Your task to perform on an android device: uninstall "Reddit" Image 0: 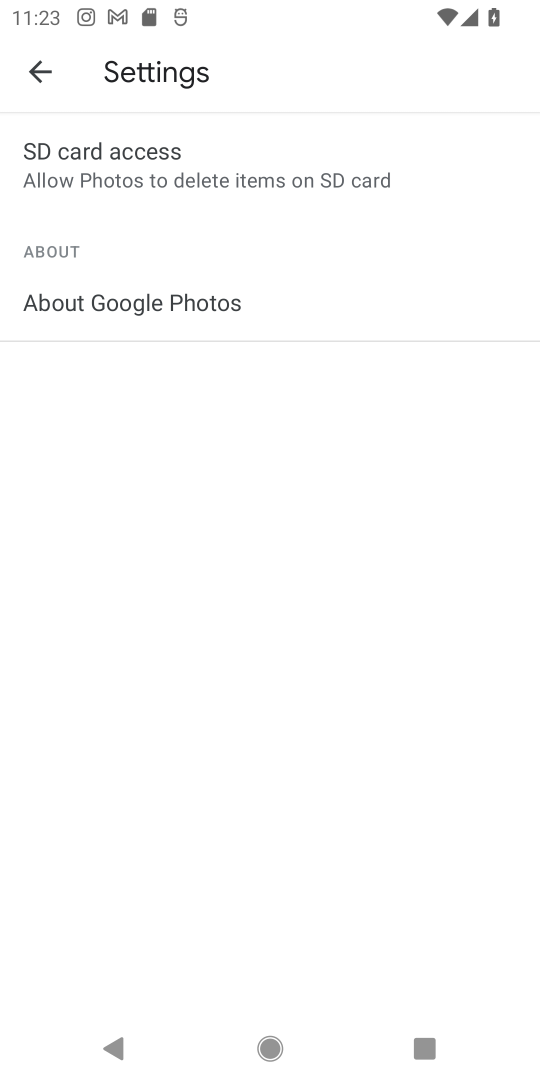
Step 0: press home button
Your task to perform on an android device: uninstall "Reddit" Image 1: 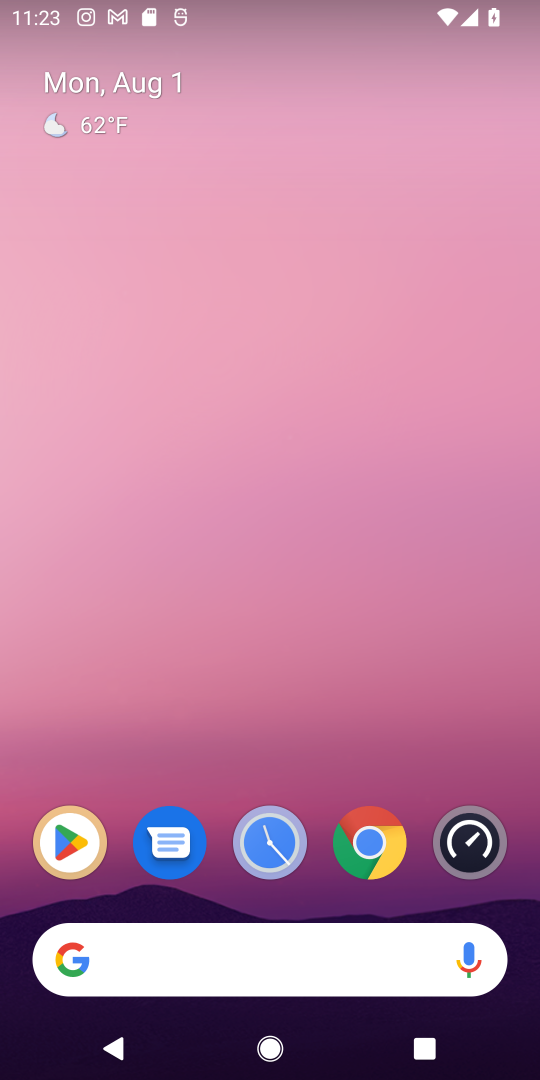
Step 1: click (53, 842)
Your task to perform on an android device: uninstall "Reddit" Image 2: 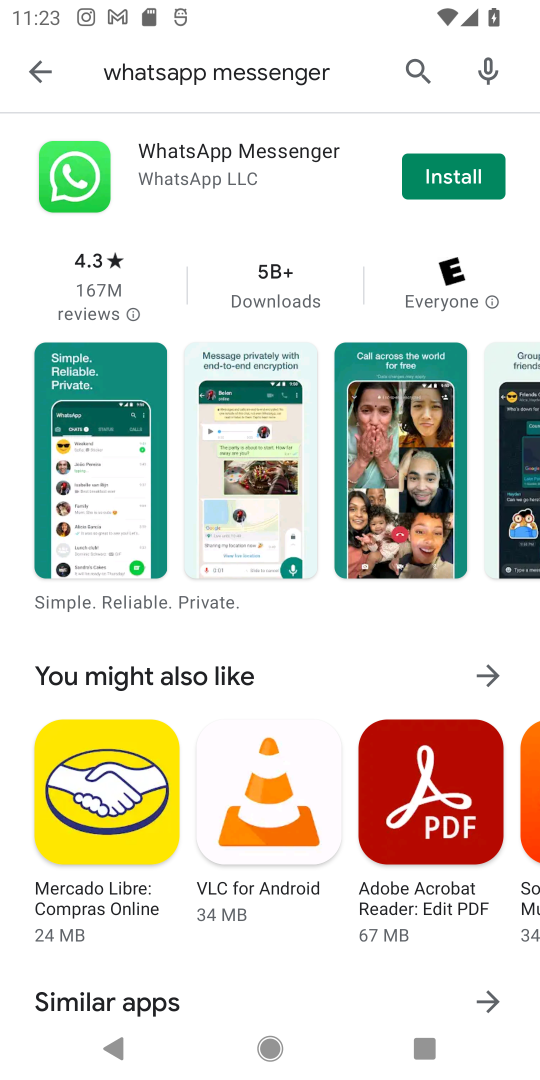
Step 2: click (411, 73)
Your task to perform on an android device: uninstall "Reddit" Image 3: 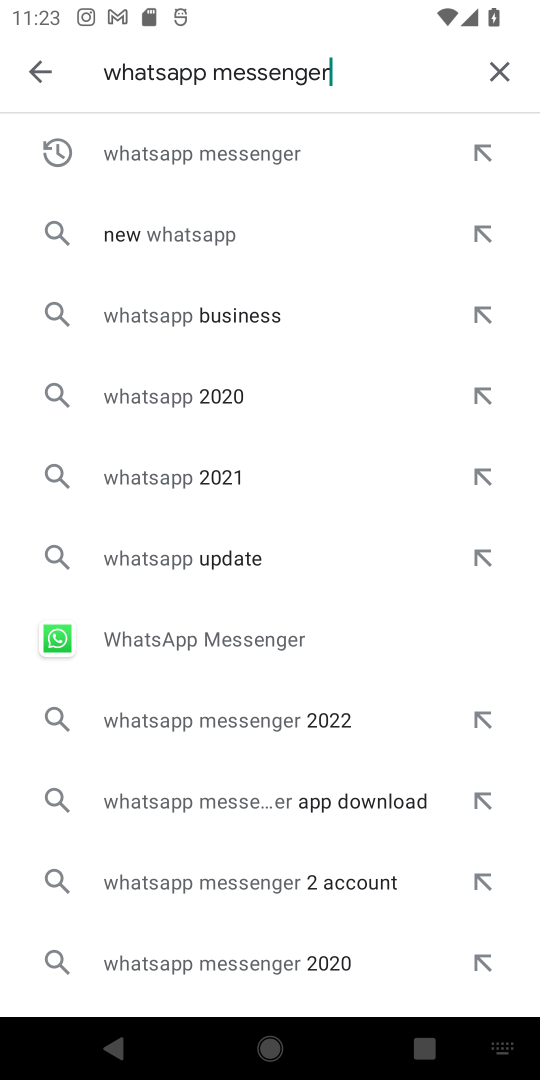
Step 3: click (479, 60)
Your task to perform on an android device: uninstall "Reddit" Image 4: 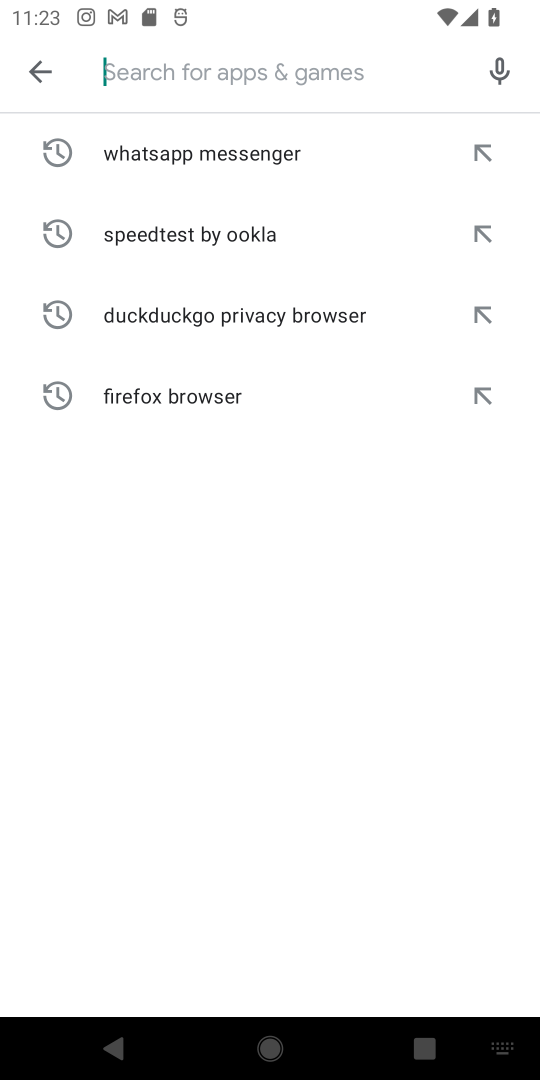
Step 4: click (227, 90)
Your task to perform on an android device: uninstall "Reddit" Image 5: 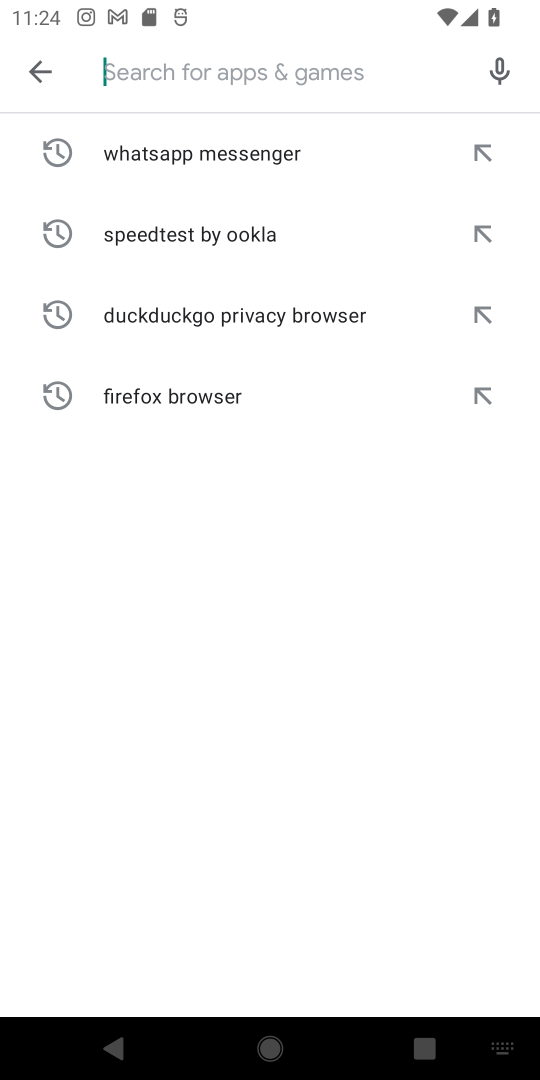
Step 5: click (177, 71)
Your task to perform on an android device: uninstall "Reddit" Image 6: 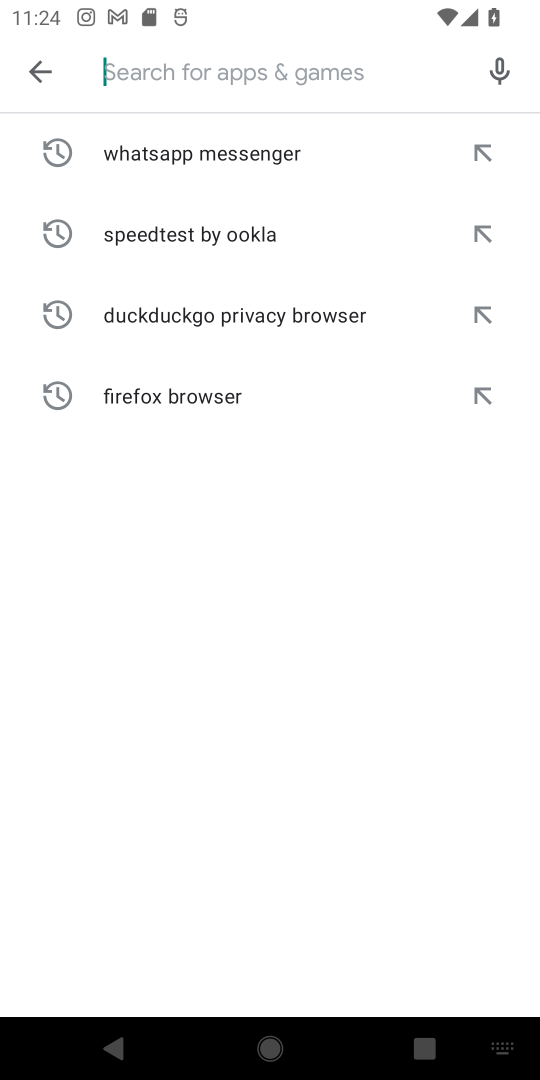
Step 6: type "Reddit"
Your task to perform on an android device: uninstall "Reddit" Image 7: 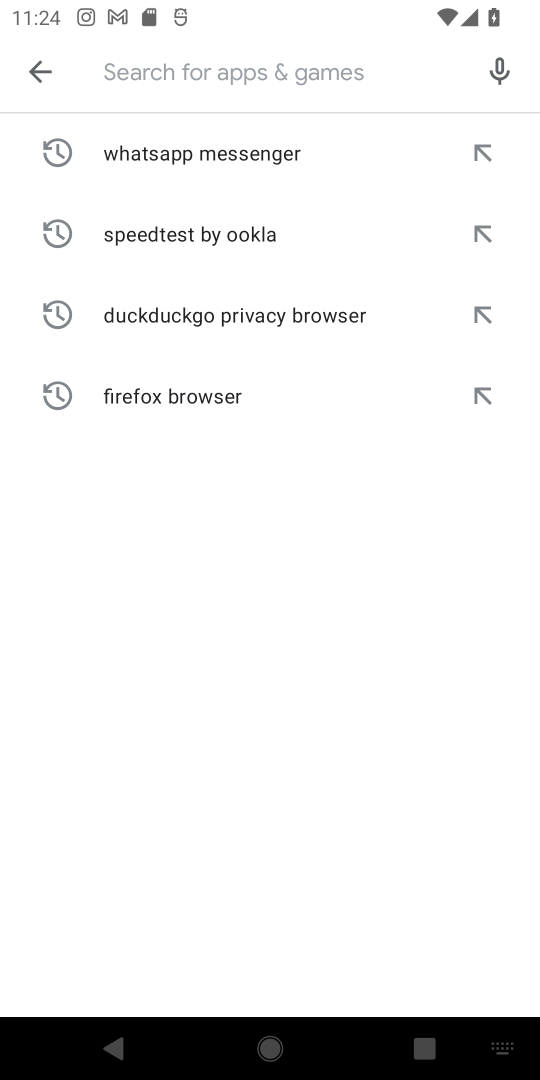
Step 7: click (176, 525)
Your task to perform on an android device: uninstall "Reddit" Image 8: 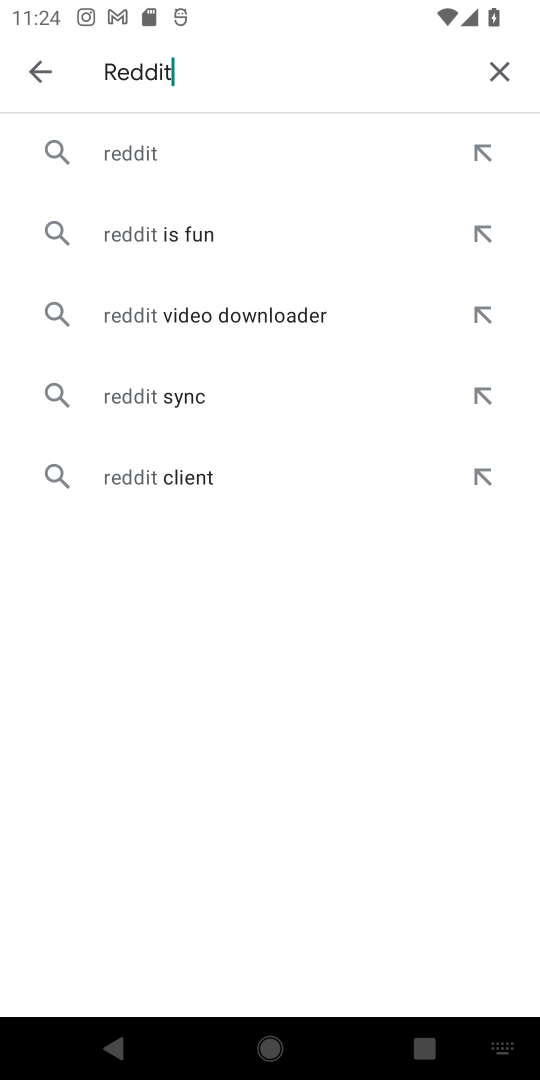
Step 8: click (190, 139)
Your task to perform on an android device: uninstall "Reddit" Image 9: 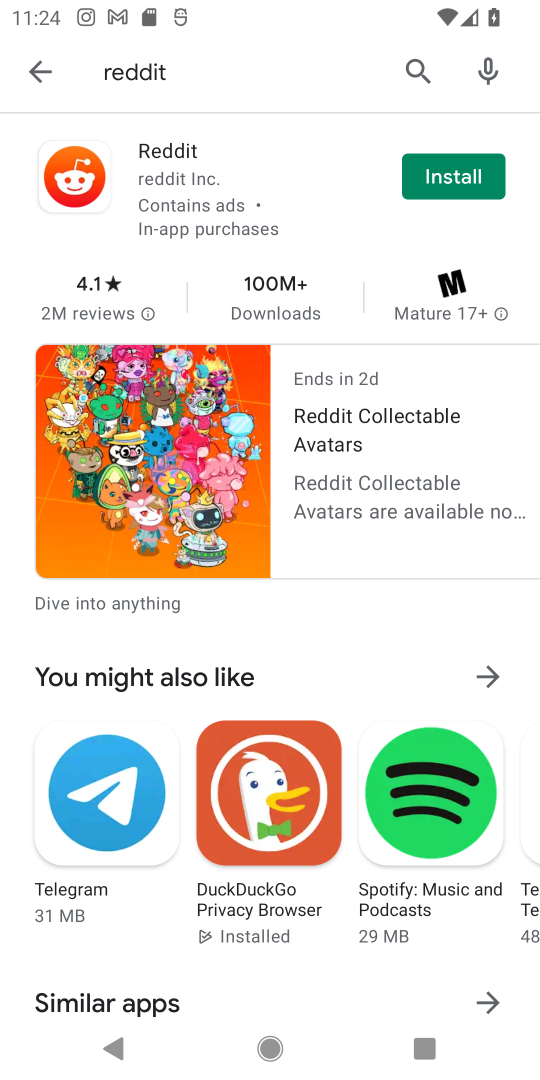
Step 9: task complete